Your task to perform on an android device: Open the web browser Image 0: 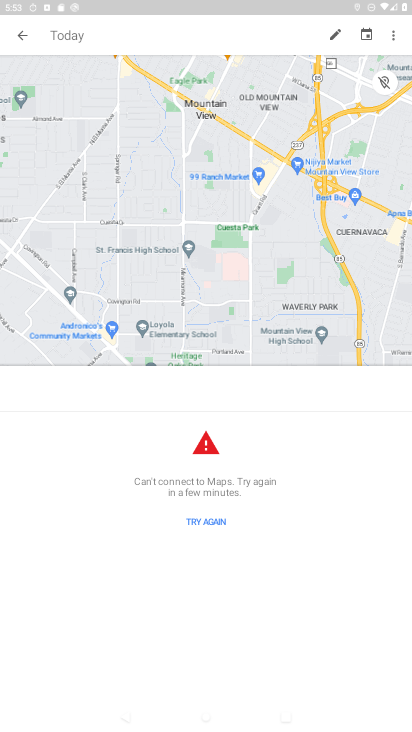
Step 0: press home button
Your task to perform on an android device: Open the web browser Image 1: 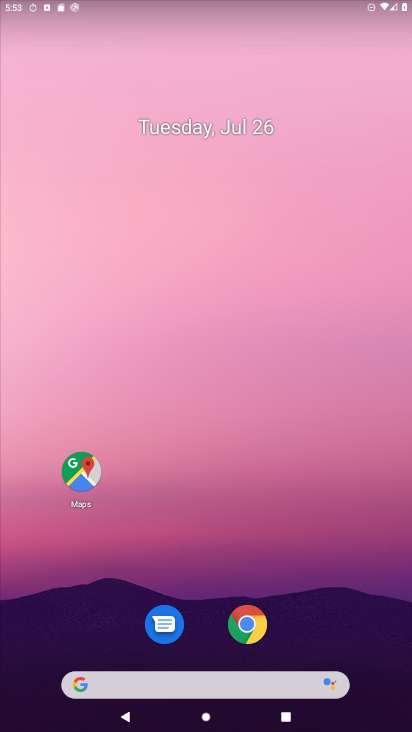
Step 1: drag from (168, 665) to (174, 61)
Your task to perform on an android device: Open the web browser Image 2: 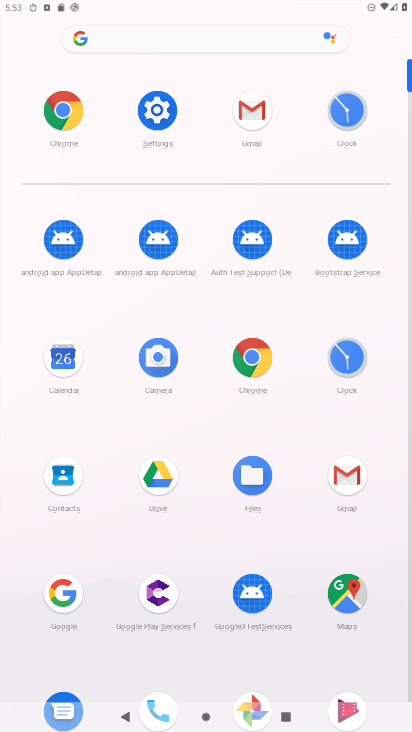
Step 2: click (260, 366)
Your task to perform on an android device: Open the web browser Image 3: 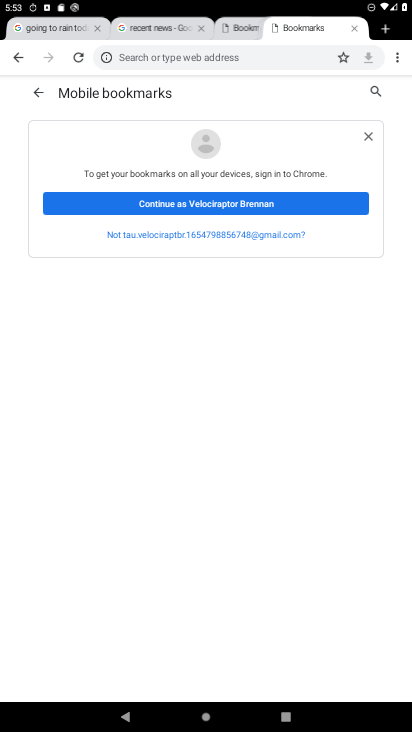
Step 3: task complete